Your task to perform on an android device: see sites visited before in the chrome app Image 0: 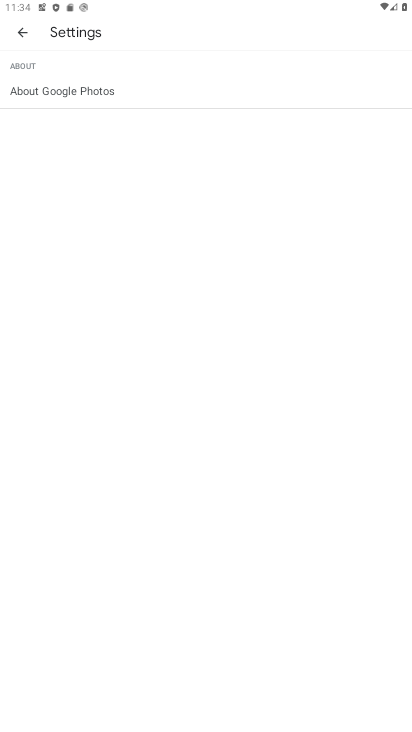
Step 0: press home button
Your task to perform on an android device: see sites visited before in the chrome app Image 1: 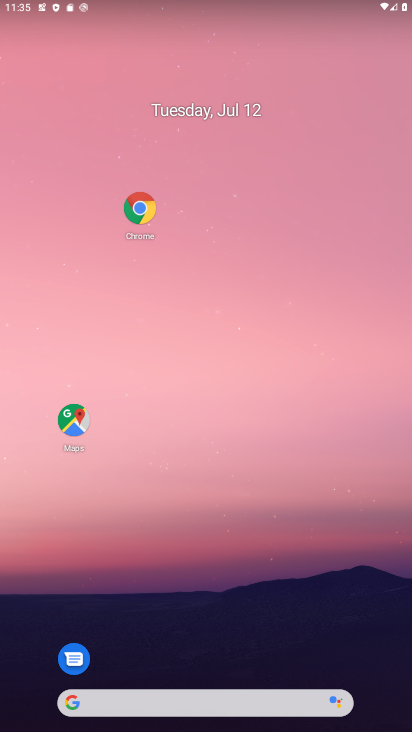
Step 1: drag from (298, 703) to (382, 11)
Your task to perform on an android device: see sites visited before in the chrome app Image 2: 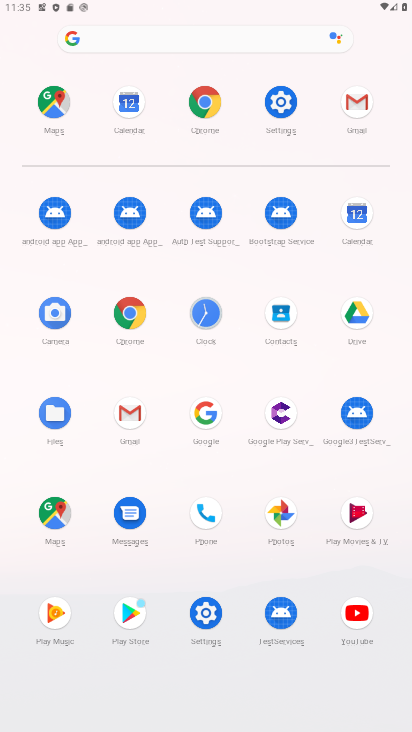
Step 2: click (130, 309)
Your task to perform on an android device: see sites visited before in the chrome app Image 3: 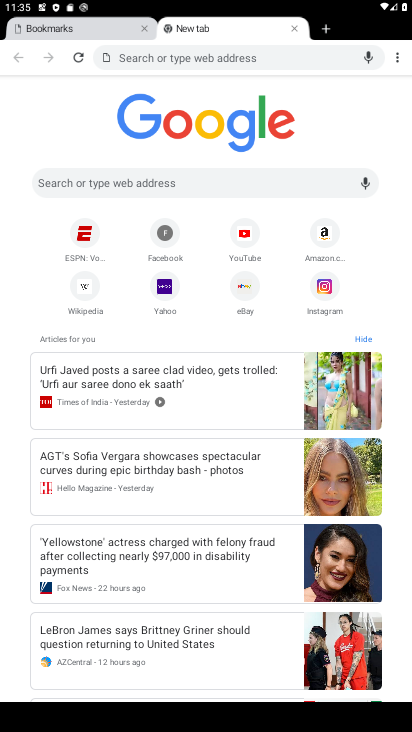
Step 3: task complete